Your task to perform on an android device: See recent photos Image 0: 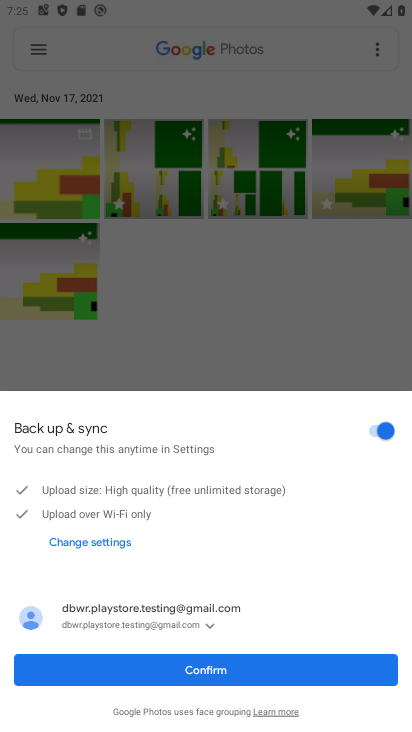
Step 0: press home button
Your task to perform on an android device: See recent photos Image 1: 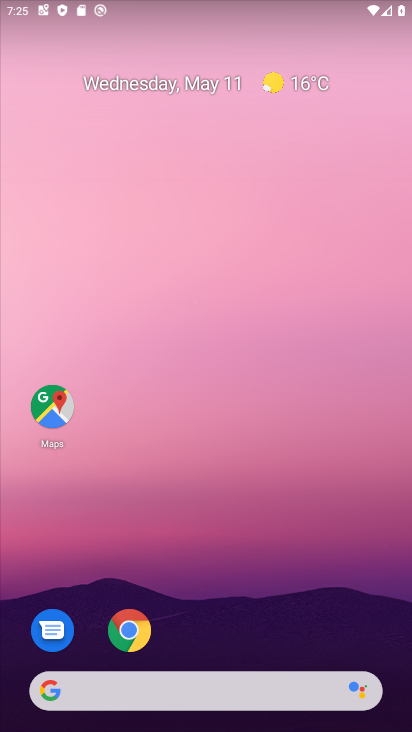
Step 1: drag from (287, 616) to (303, 37)
Your task to perform on an android device: See recent photos Image 2: 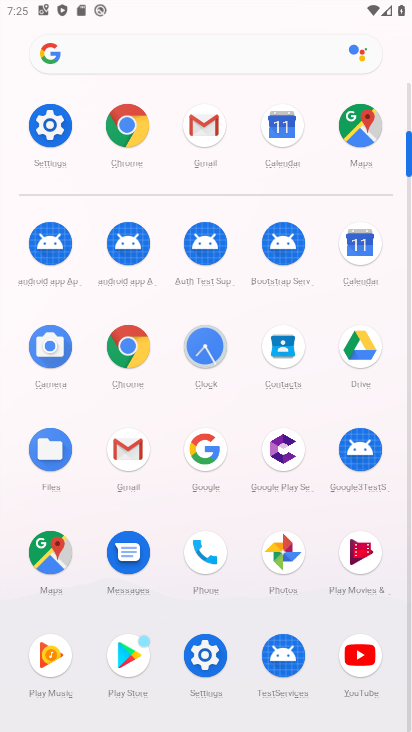
Step 2: click (272, 544)
Your task to perform on an android device: See recent photos Image 3: 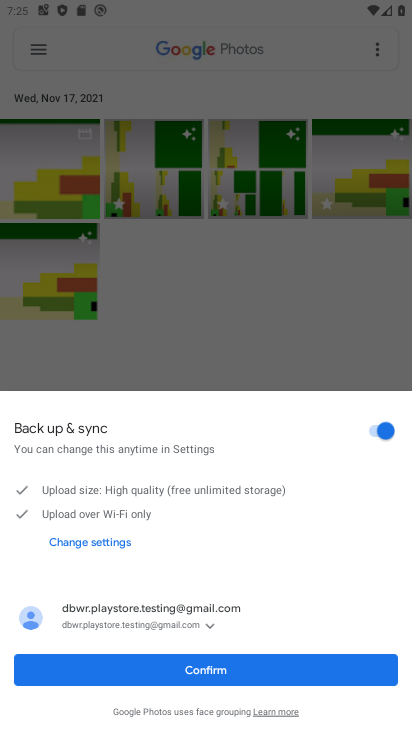
Step 3: click (220, 672)
Your task to perform on an android device: See recent photos Image 4: 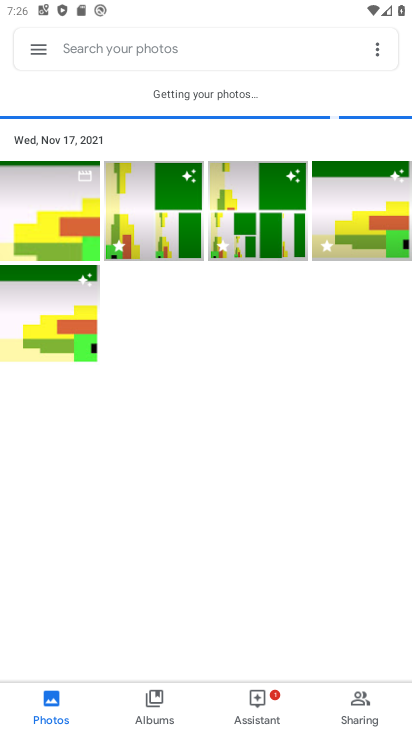
Step 4: click (28, 186)
Your task to perform on an android device: See recent photos Image 5: 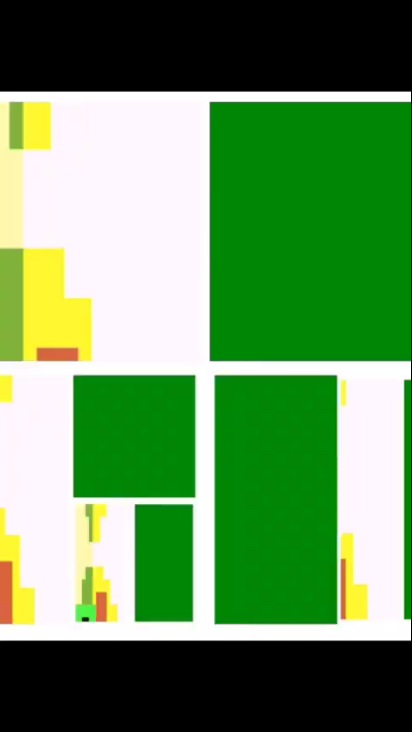
Step 5: task complete